Your task to perform on an android device: Search for seafood restaurants on Google Maps Image 0: 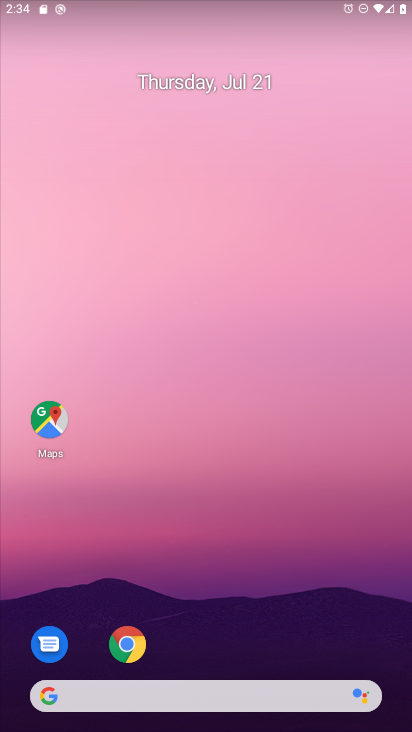
Step 0: drag from (155, 676) to (175, 400)
Your task to perform on an android device: Search for seafood restaurants on Google Maps Image 1: 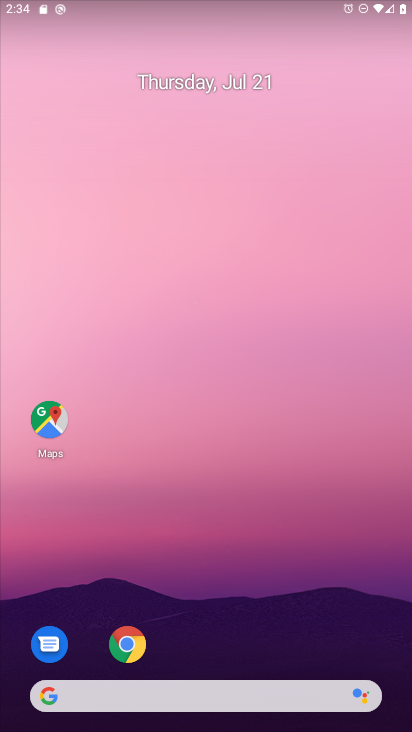
Step 1: drag from (172, 671) to (218, 223)
Your task to perform on an android device: Search for seafood restaurants on Google Maps Image 2: 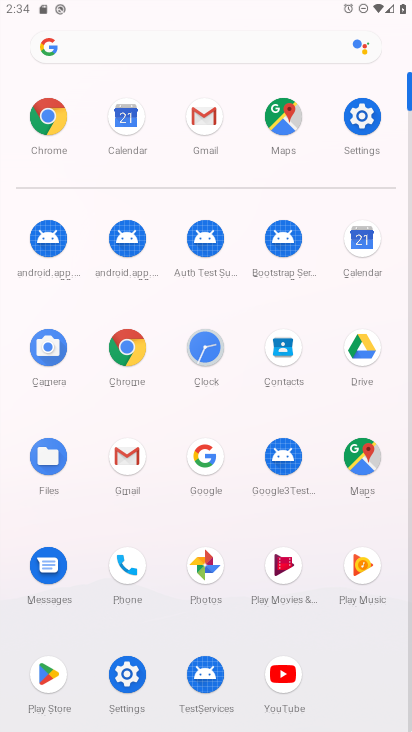
Step 2: click (365, 458)
Your task to perform on an android device: Search for seafood restaurants on Google Maps Image 3: 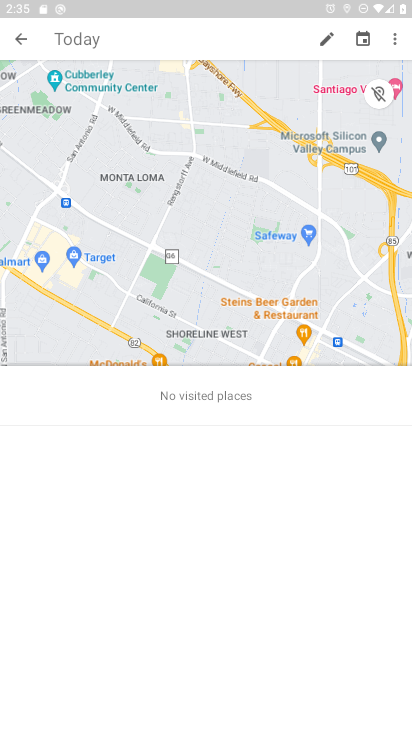
Step 3: click (23, 39)
Your task to perform on an android device: Search for seafood restaurants on Google Maps Image 4: 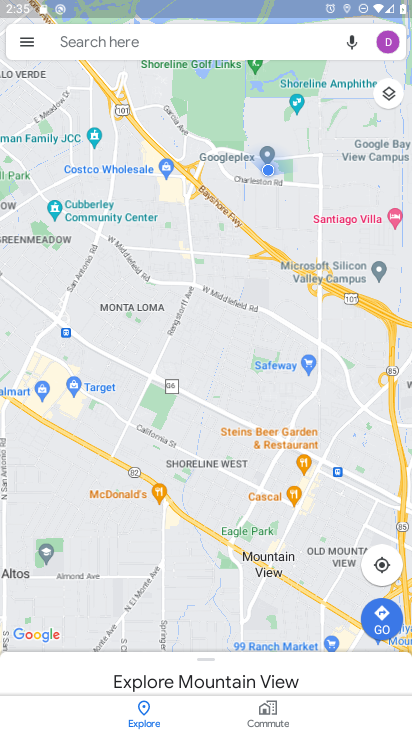
Step 4: click (147, 42)
Your task to perform on an android device: Search for seafood restaurants on Google Maps Image 5: 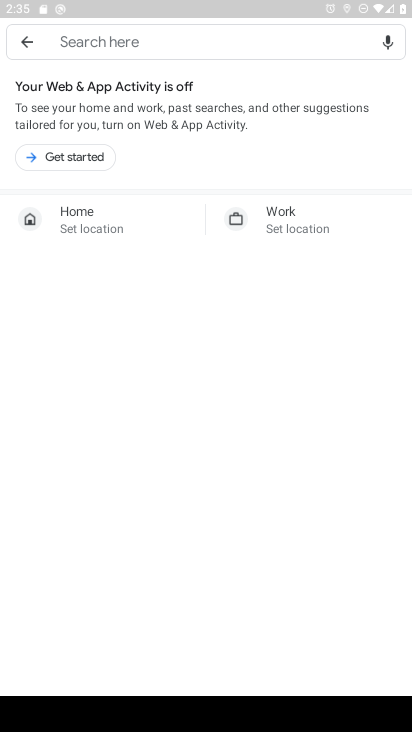
Step 5: click (127, 42)
Your task to perform on an android device: Search for seafood restaurants on Google Maps Image 6: 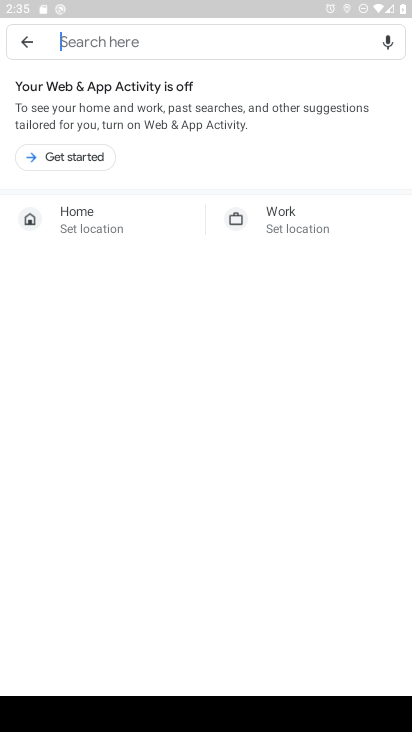
Step 6: type "seafood restaurants"
Your task to perform on an android device: Search for seafood restaurants on Google Maps Image 7: 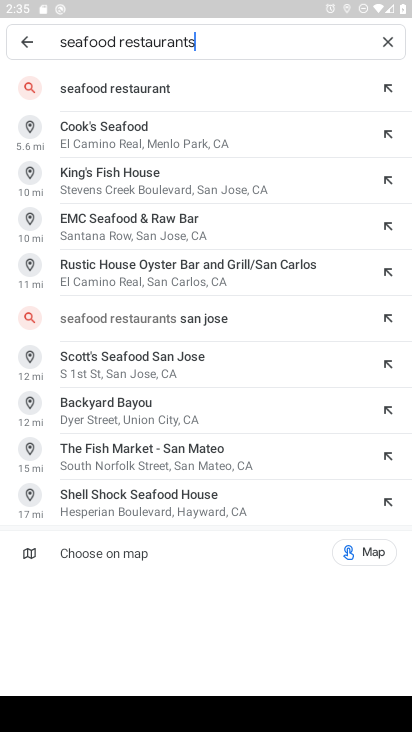
Step 7: click (92, 93)
Your task to perform on an android device: Search for seafood restaurants on Google Maps Image 8: 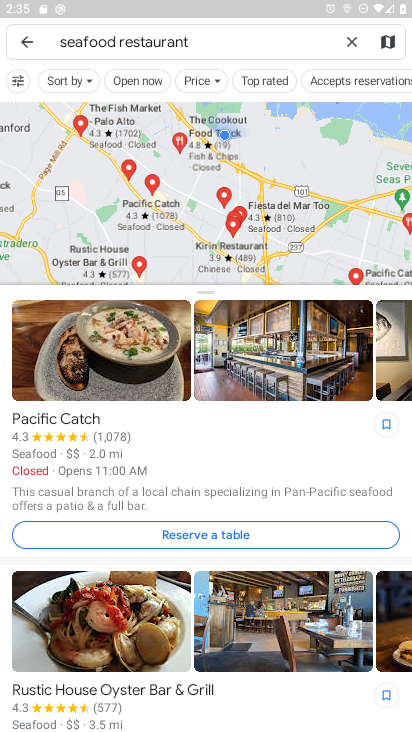
Step 8: task complete